Your task to perform on an android device: Go to settings Image 0: 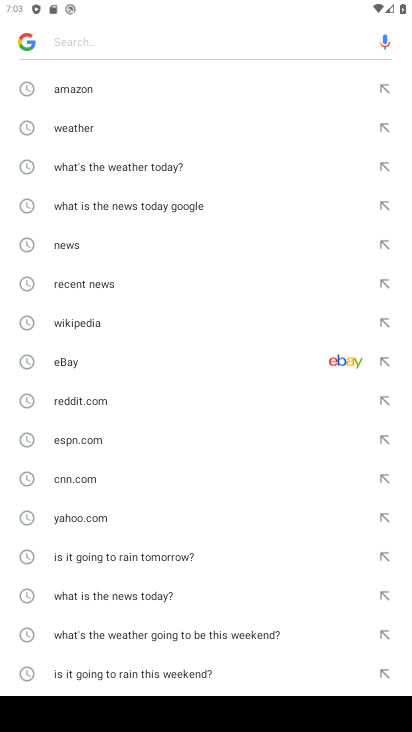
Step 0: press back button
Your task to perform on an android device: Go to settings Image 1: 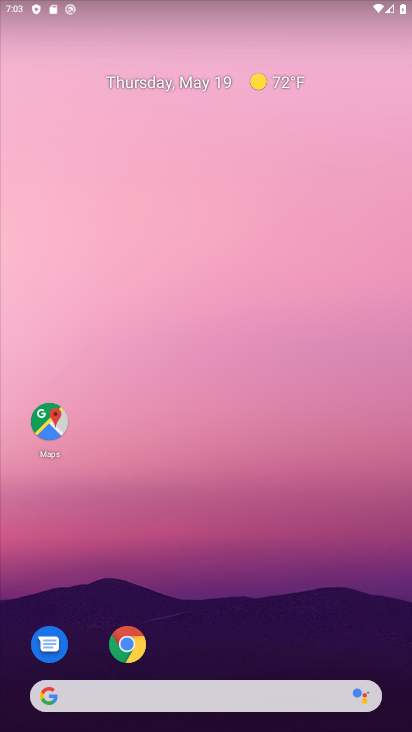
Step 1: drag from (268, 550) to (244, 0)
Your task to perform on an android device: Go to settings Image 2: 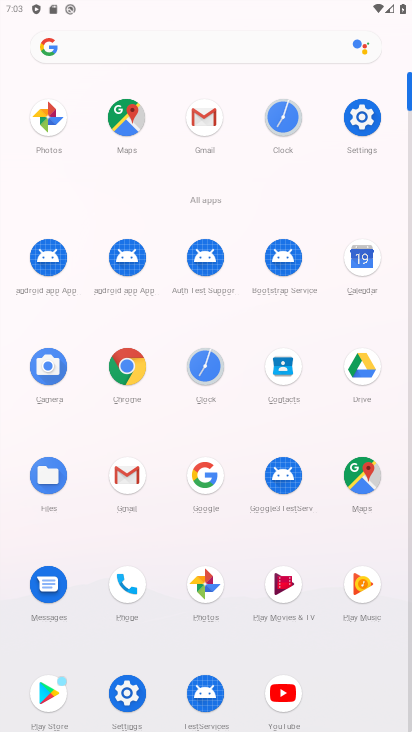
Step 2: click (356, 125)
Your task to perform on an android device: Go to settings Image 3: 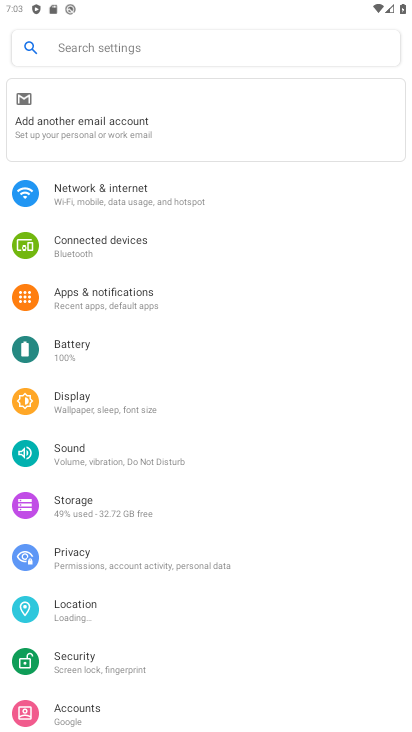
Step 3: task complete